Your task to perform on an android device: Open accessibility settings Image 0: 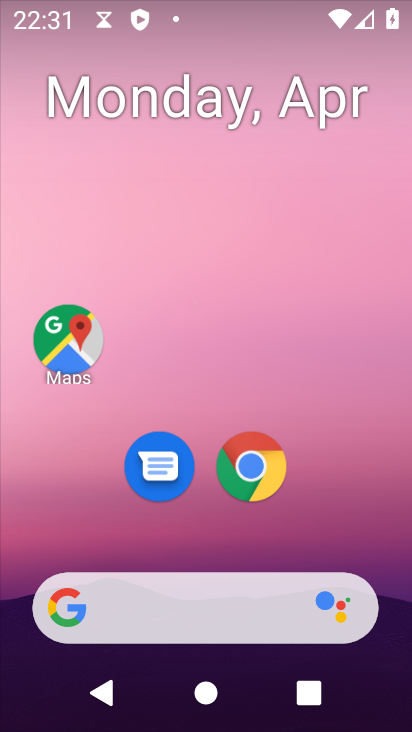
Step 0: drag from (216, 551) to (299, 127)
Your task to perform on an android device: Open accessibility settings Image 1: 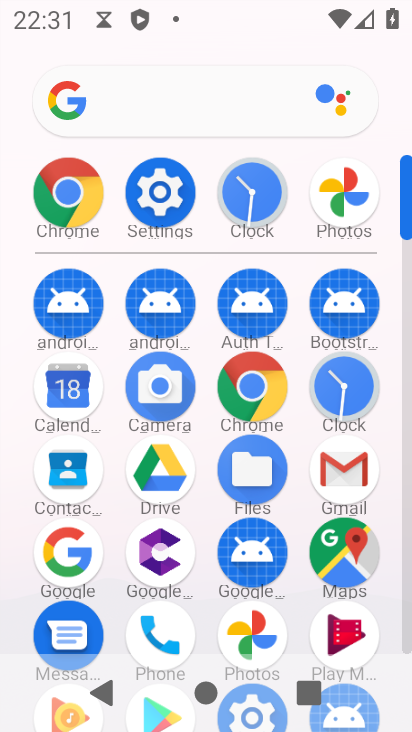
Step 1: click (172, 224)
Your task to perform on an android device: Open accessibility settings Image 2: 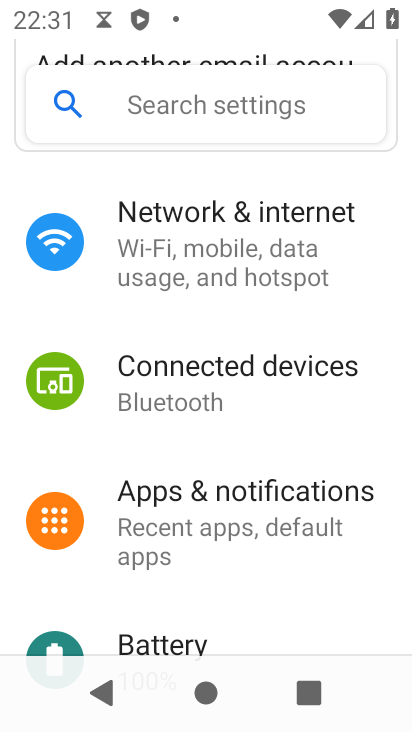
Step 2: drag from (243, 585) to (287, 401)
Your task to perform on an android device: Open accessibility settings Image 3: 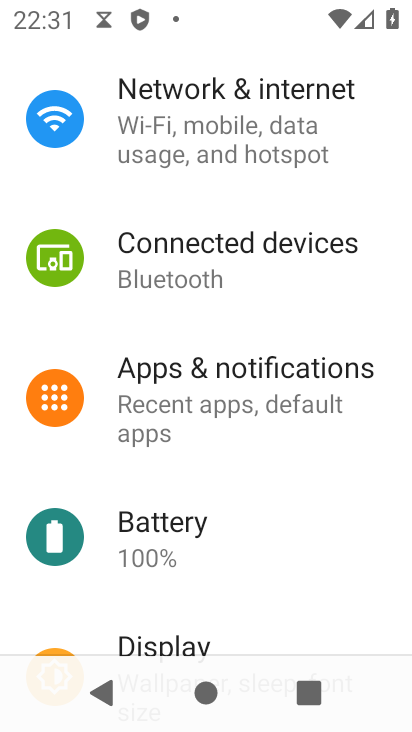
Step 3: drag from (252, 525) to (277, 397)
Your task to perform on an android device: Open accessibility settings Image 4: 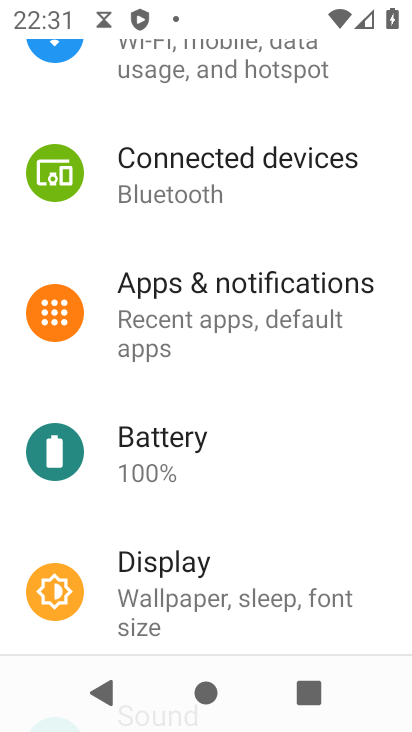
Step 4: drag from (207, 548) to (268, 418)
Your task to perform on an android device: Open accessibility settings Image 5: 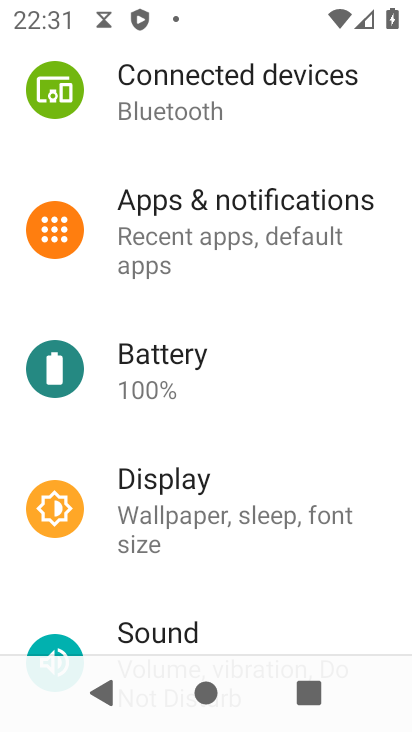
Step 5: drag from (227, 541) to (283, 402)
Your task to perform on an android device: Open accessibility settings Image 6: 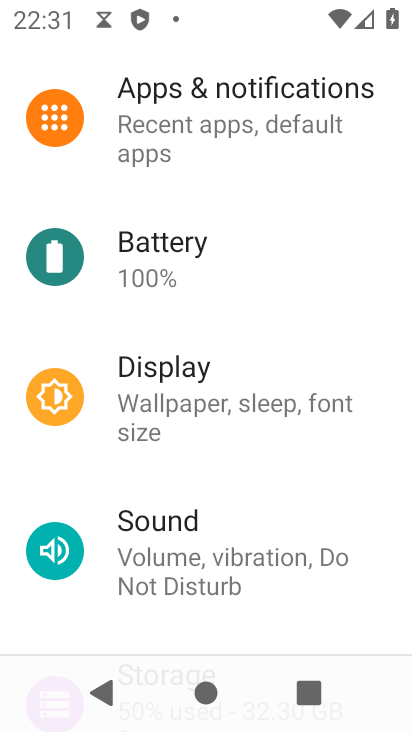
Step 6: drag from (222, 528) to (297, 375)
Your task to perform on an android device: Open accessibility settings Image 7: 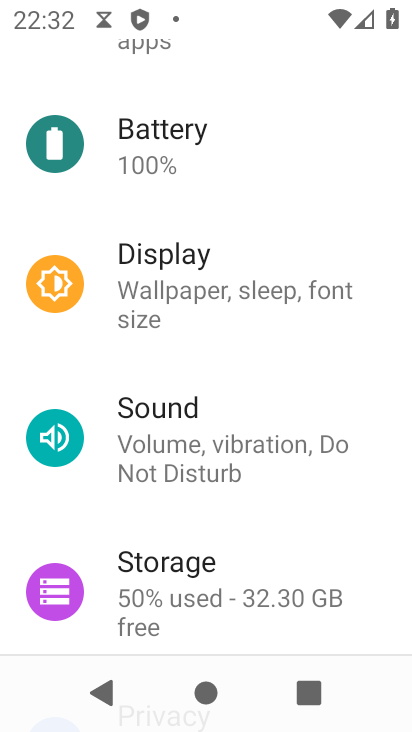
Step 7: drag from (233, 530) to (254, 381)
Your task to perform on an android device: Open accessibility settings Image 8: 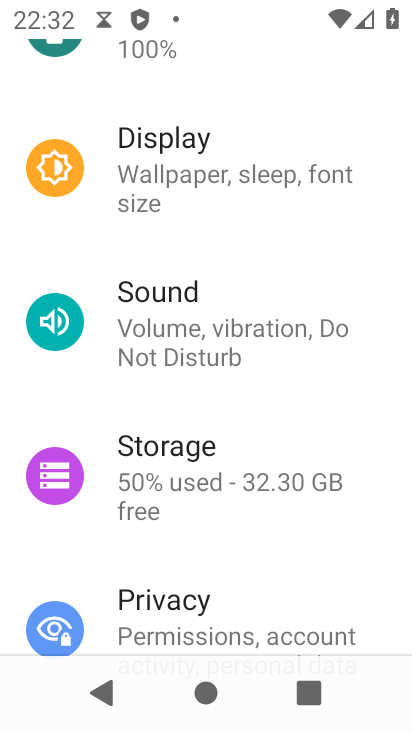
Step 8: drag from (230, 521) to (282, 381)
Your task to perform on an android device: Open accessibility settings Image 9: 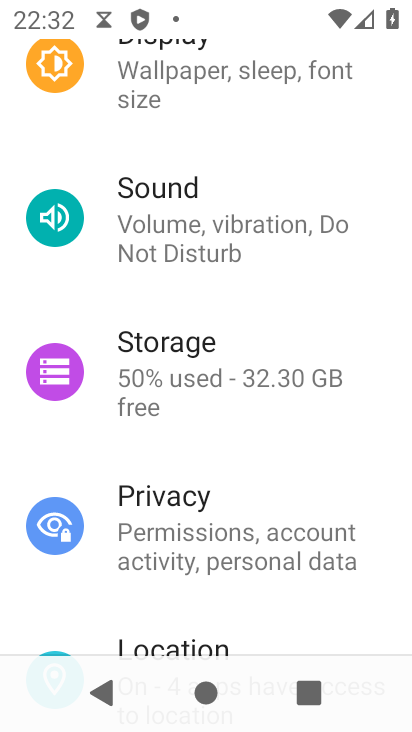
Step 9: drag from (237, 444) to (281, 336)
Your task to perform on an android device: Open accessibility settings Image 10: 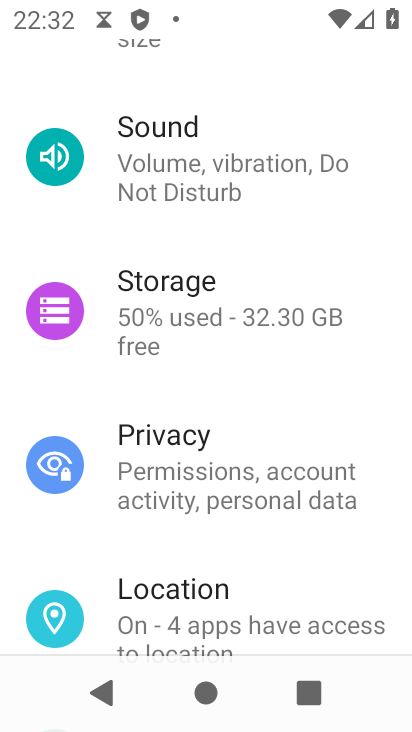
Step 10: drag from (236, 405) to (271, 250)
Your task to perform on an android device: Open accessibility settings Image 11: 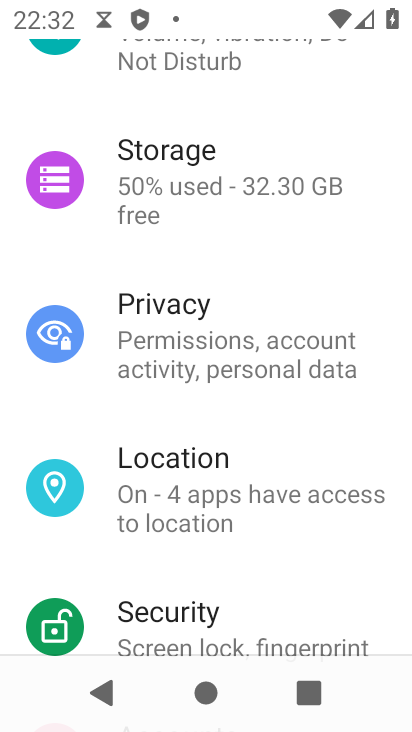
Step 11: drag from (234, 435) to (270, 329)
Your task to perform on an android device: Open accessibility settings Image 12: 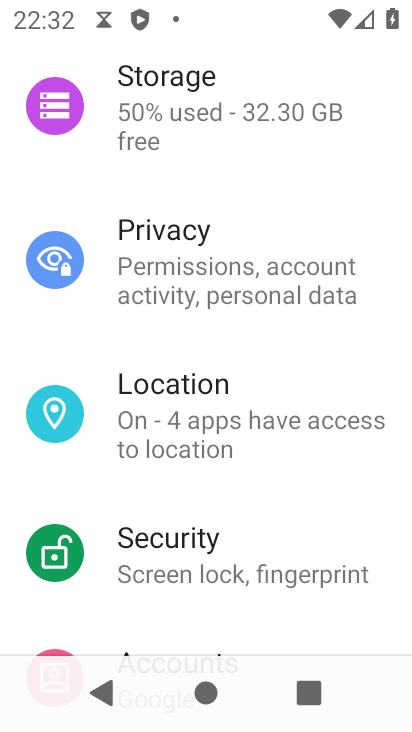
Step 12: drag from (239, 481) to (261, 348)
Your task to perform on an android device: Open accessibility settings Image 13: 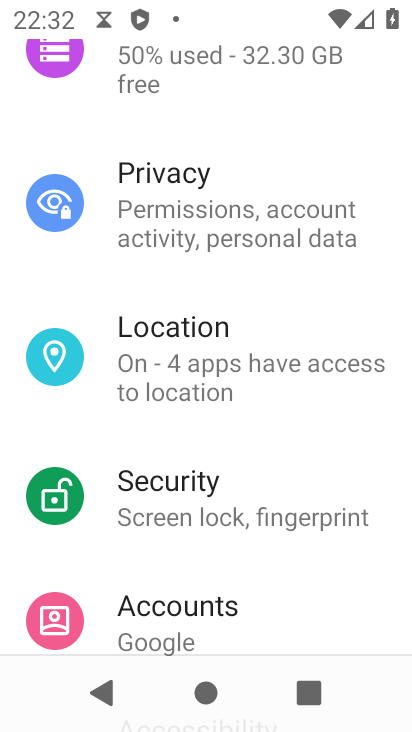
Step 13: drag from (238, 455) to (306, 290)
Your task to perform on an android device: Open accessibility settings Image 14: 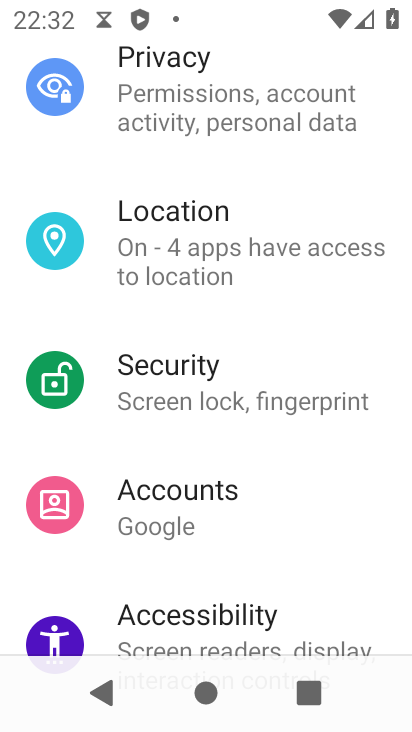
Step 14: drag from (250, 478) to (278, 333)
Your task to perform on an android device: Open accessibility settings Image 15: 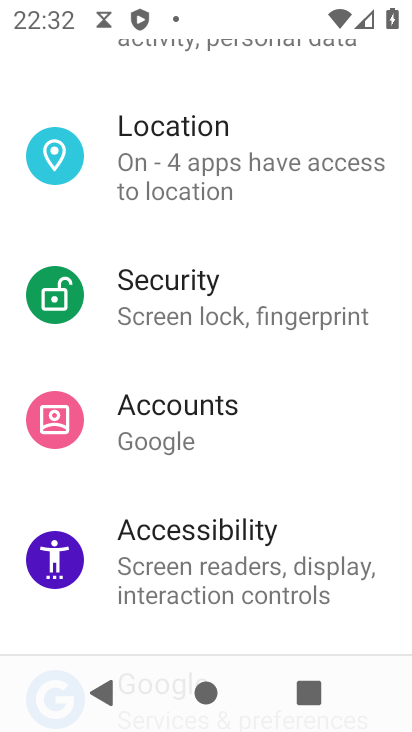
Step 15: click (224, 532)
Your task to perform on an android device: Open accessibility settings Image 16: 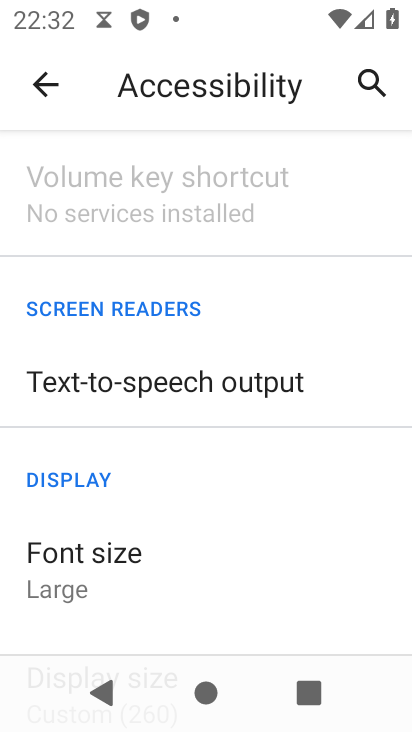
Step 16: task complete